Your task to perform on an android device: turn off location Image 0: 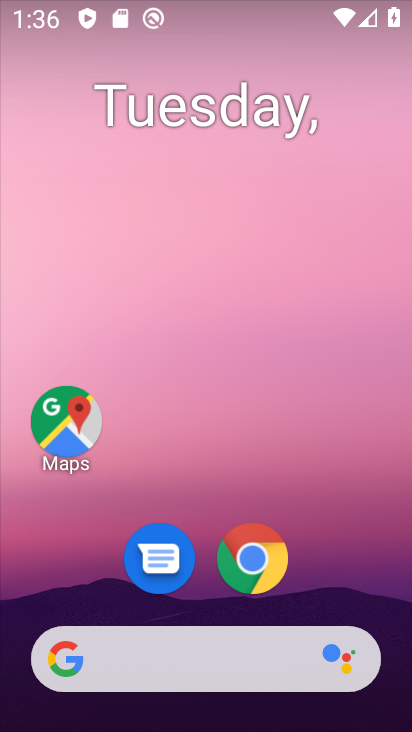
Step 0: drag from (203, 546) to (288, 38)
Your task to perform on an android device: turn off location Image 1: 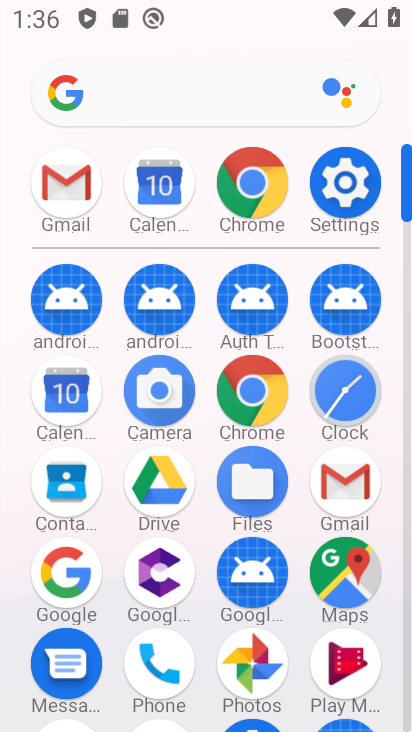
Step 1: click (357, 172)
Your task to perform on an android device: turn off location Image 2: 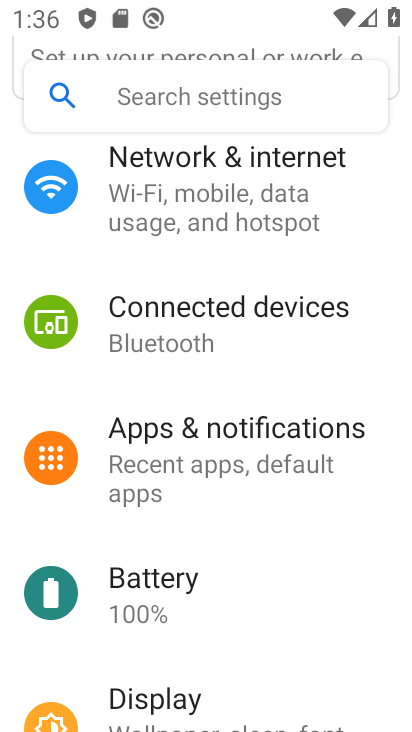
Step 2: drag from (162, 642) to (343, 70)
Your task to perform on an android device: turn off location Image 3: 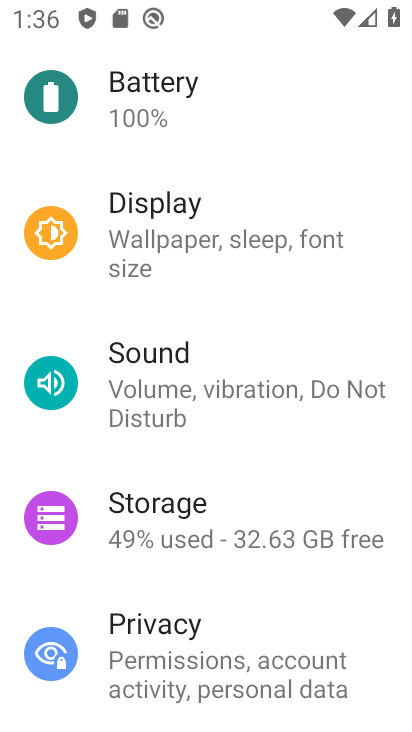
Step 3: drag from (189, 668) to (310, 51)
Your task to perform on an android device: turn off location Image 4: 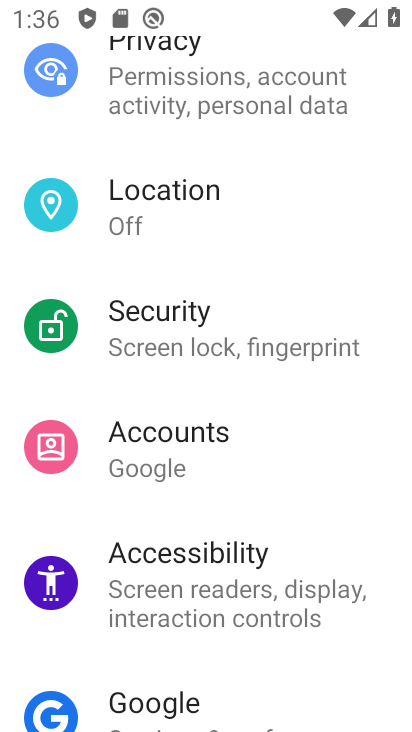
Step 4: click (139, 206)
Your task to perform on an android device: turn off location Image 5: 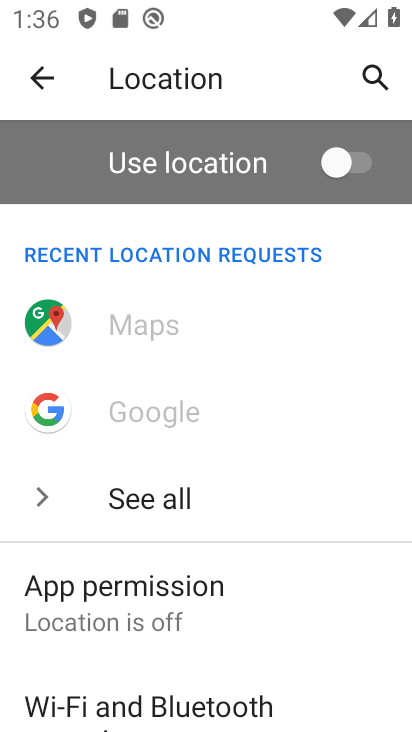
Step 5: task complete